Your task to perform on an android device: Turn off the flashlight Image 0: 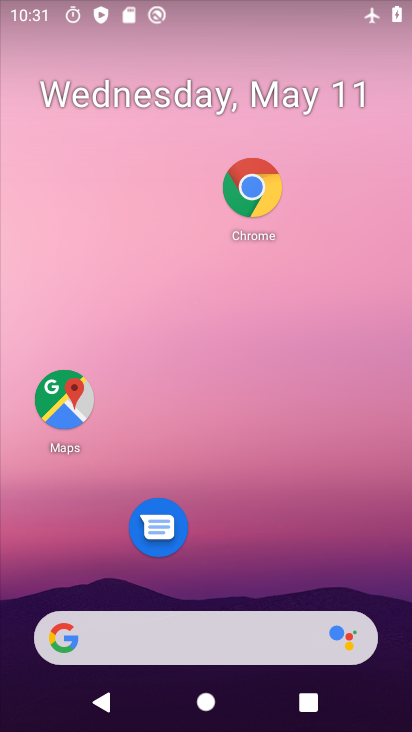
Step 0: drag from (281, 538) to (293, 147)
Your task to perform on an android device: Turn off the flashlight Image 1: 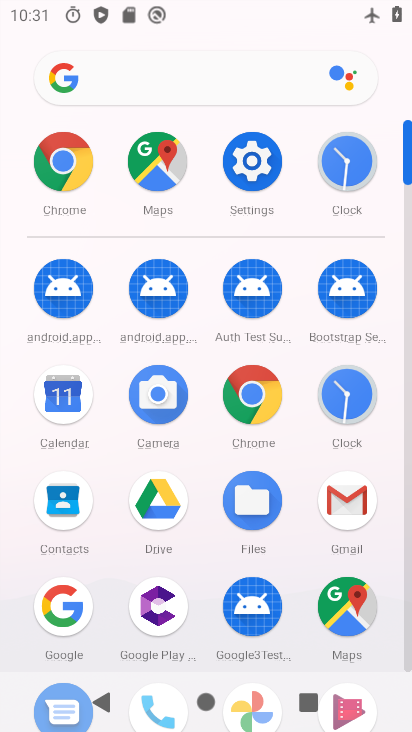
Step 1: task complete